Your task to perform on an android device: see creations saved in the google photos Image 0: 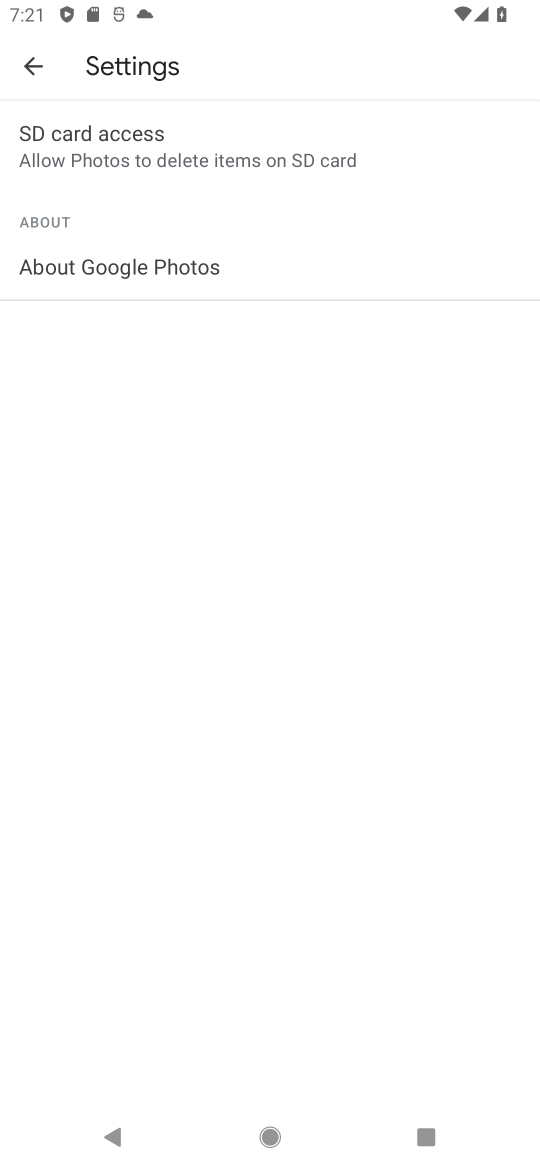
Step 0: press home button
Your task to perform on an android device: see creations saved in the google photos Image 1: 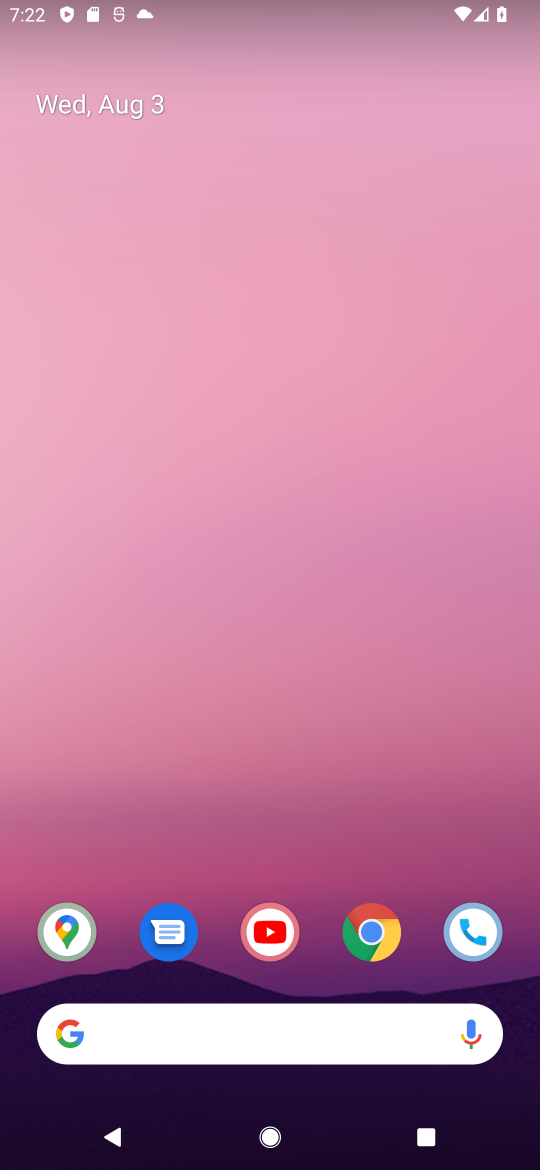
Step 1: drag from (344, 819) to (396, 167)
Your task to perform on an android device: see creations saved in the google photos Image 2: 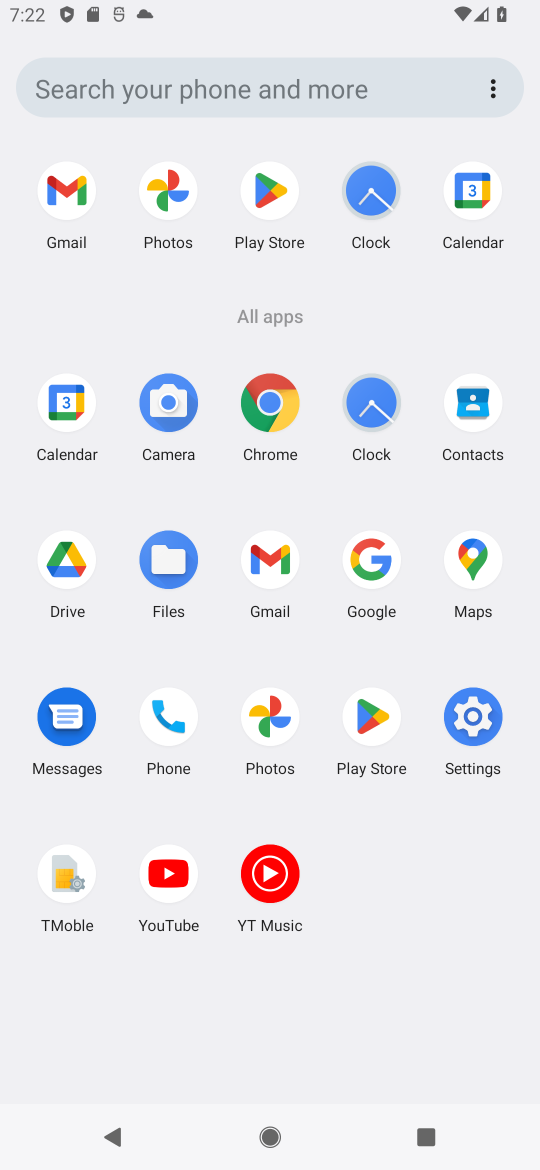
Step 2: click (170, 199)
Your task to perform on an android device: see creations saved in the google photos Image 3: 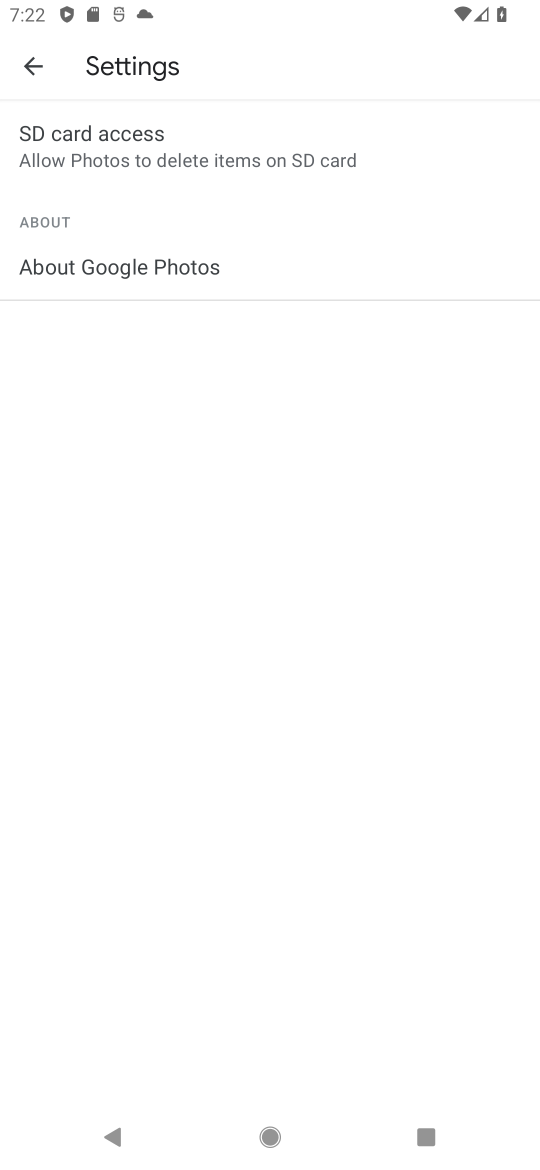
Step 3: click (38, 63)
Your task to perform on an android device: see creations saved in the google photos Image 4: 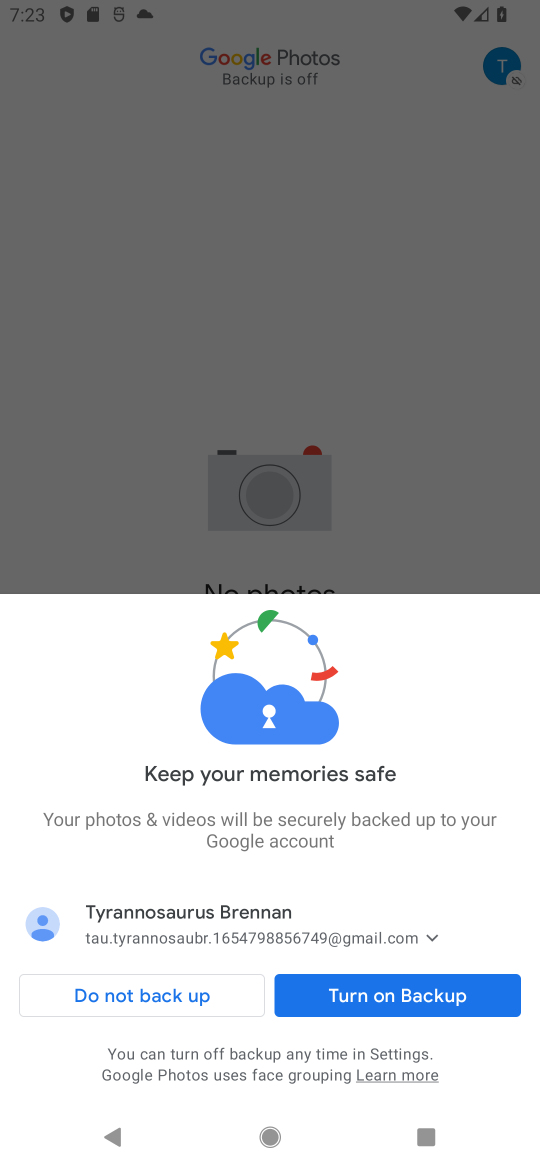
Step 4: click (221, 989)
Your task to perform on an android device: see creations saved in the google photos Image 5: 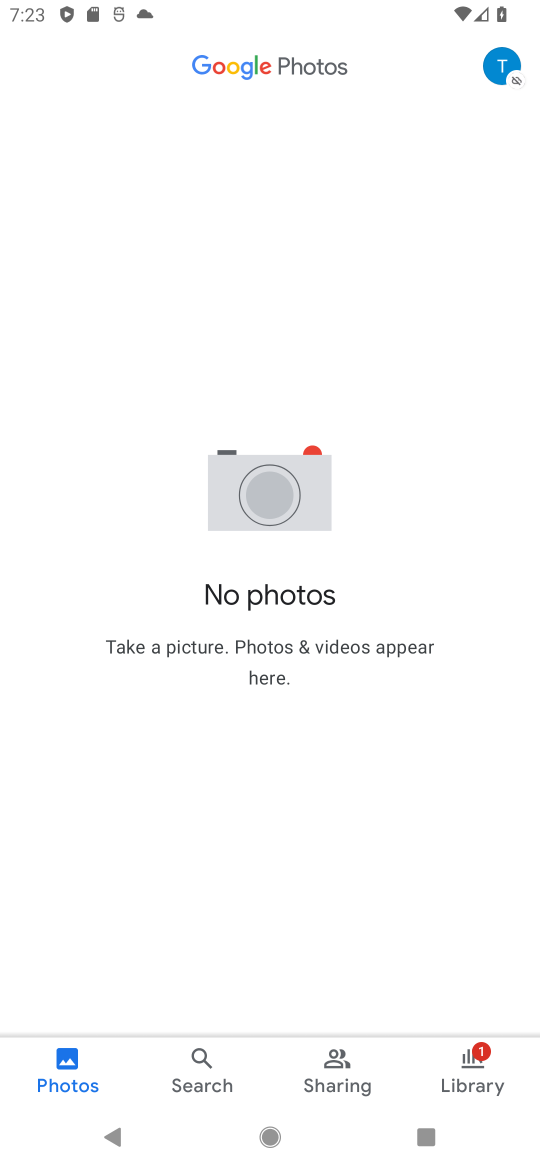
Step 5: click (192, 1038)
Your task to perform on an android device: see creations saved in the google photos Image 6: 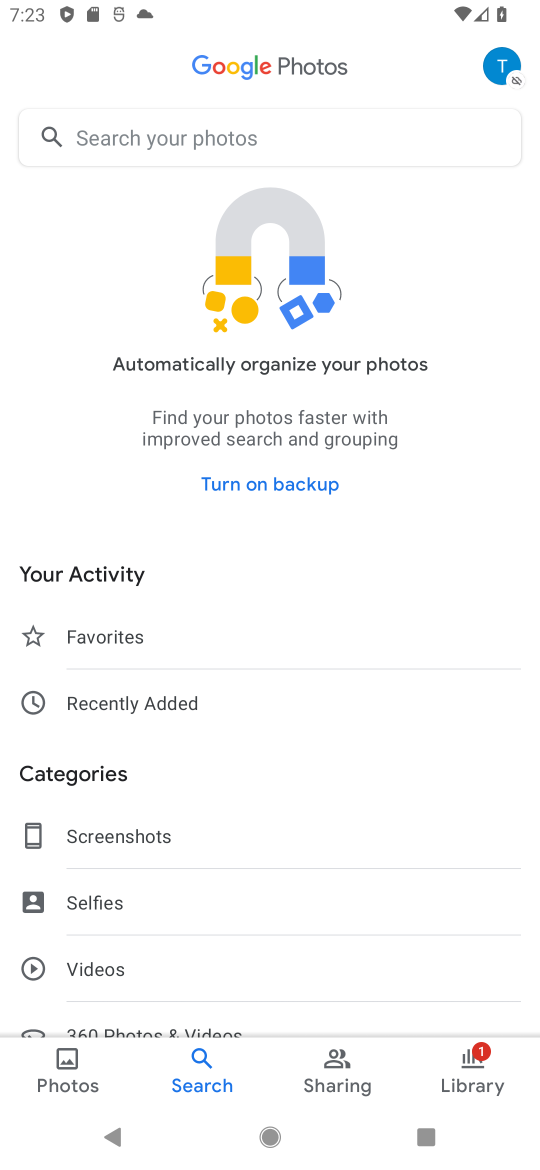
Step 6: drag from (112, 674) to (147, 6)
Your task to perform on an android device: see creations saved in the google photos Image 7: 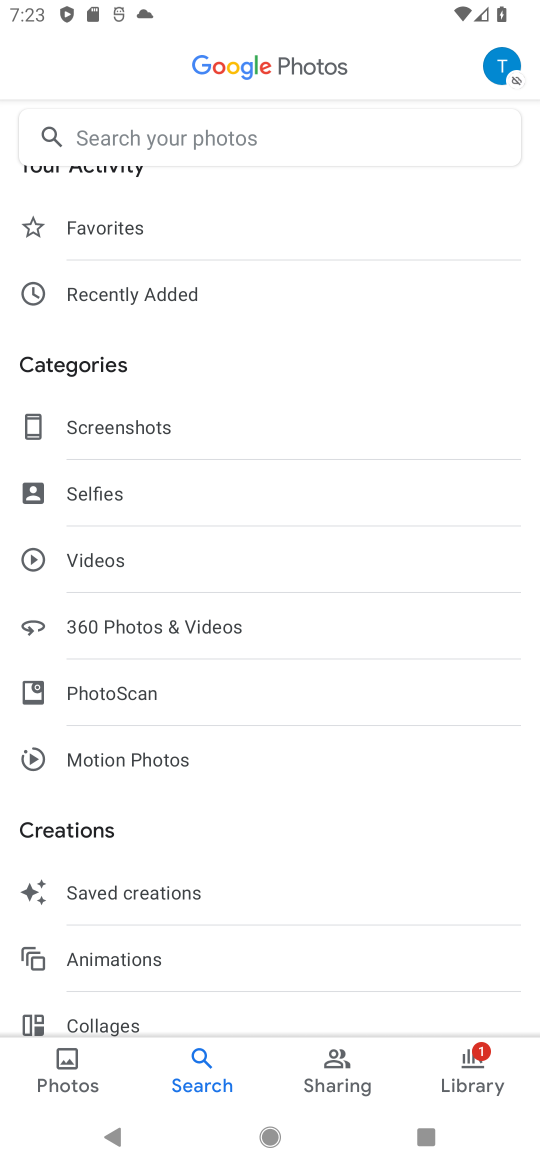
Step 7: click (194, 898)
Your task to perform on an android device: see creations saved in the google photos Image 8: 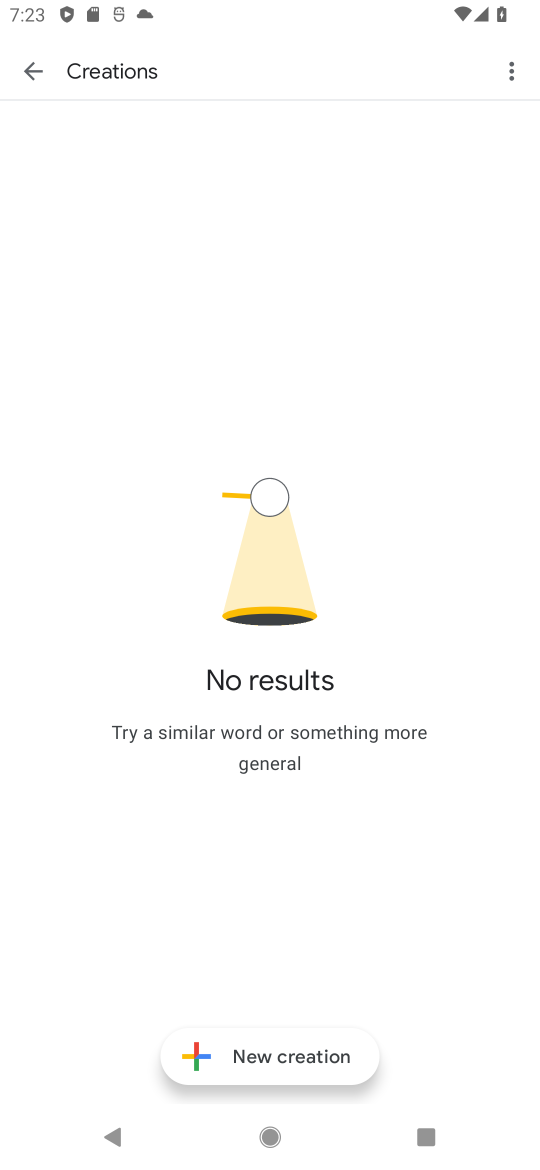
Step 8: task complete